Your task to perform on an android device: turn off priority inbox in the gmail app Image 0: 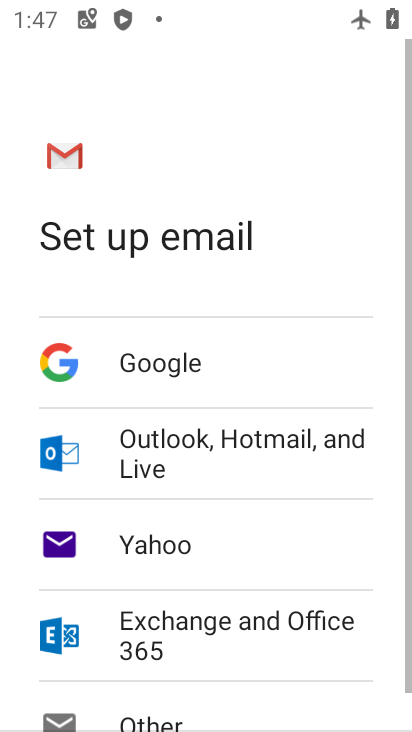
Step 0: press home button
Your task to perform on an android device: turn off priority inbox in the gmail app Image 1: 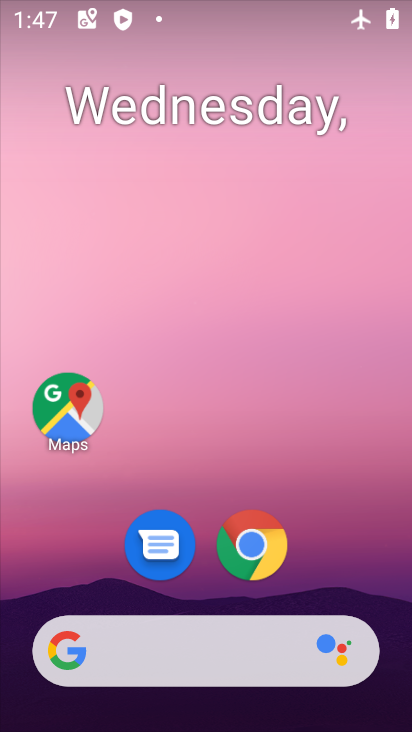
Step 1: drag from (320, 552) to (281, 110)
Your task to perform on an android device: turn off priority inbox in the gmail app Image 2: 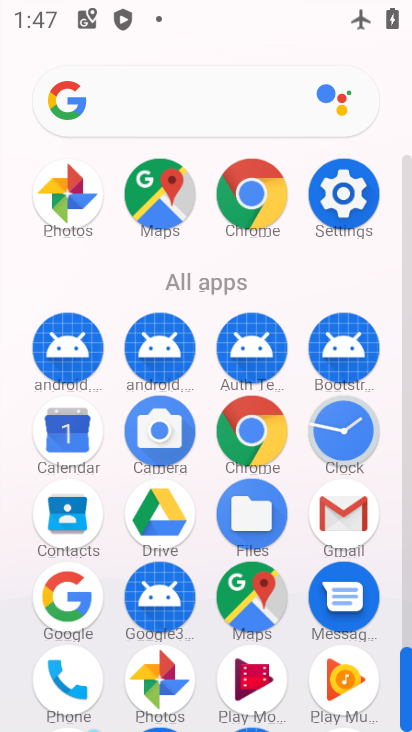
Step 2: click (344, 510)
Your task to perform on an android device: turn off priority inbox in the gmail app Image 3: 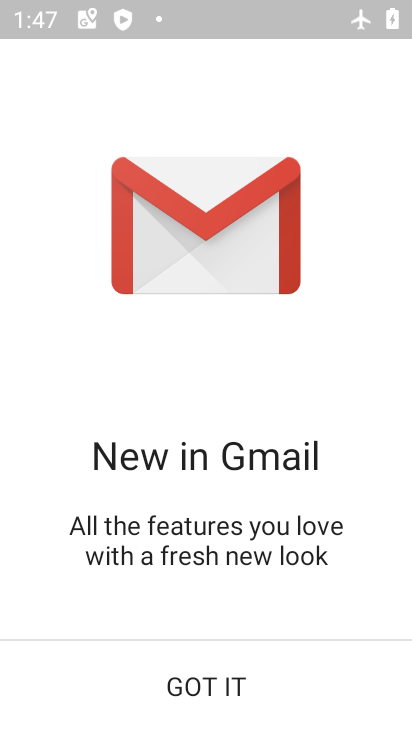
Step 3: click (220, 669)
Your task to perform on an android device: turn off priority inbox in the gmail app Image 4: 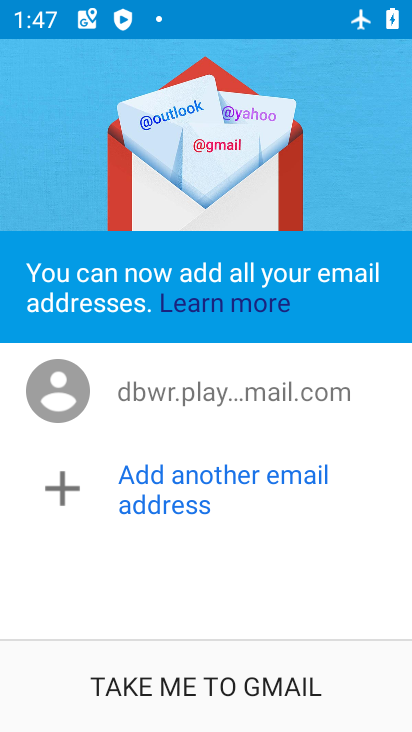
Step 4: click (211, 696)
Your task to perform on an android device: turn off priority inbox in the gmail app Image 5: 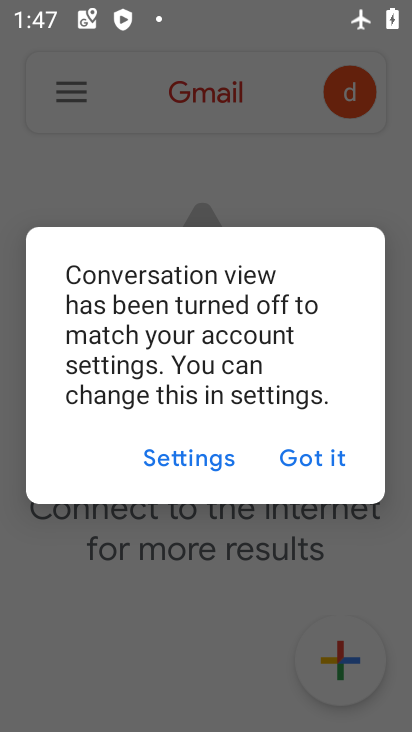
Step 5: click (306, 461)
Your task to perform on an android device: turn off priority inbox in the gmail app Image 6: 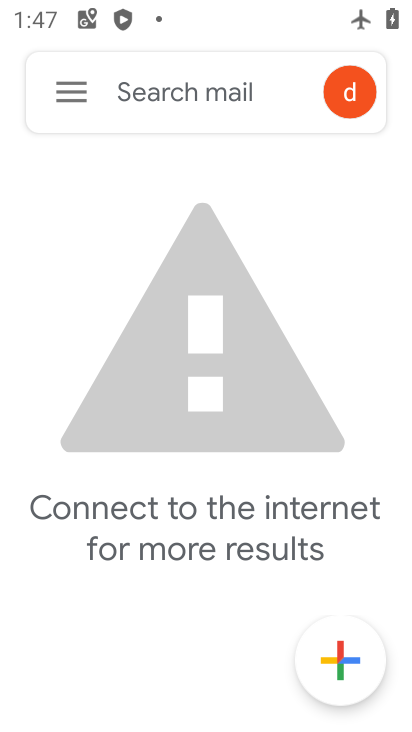
Step 6: click (56, 84)
Your task to perform on an android device: turn off priority inbox in the gmail app Image 7: 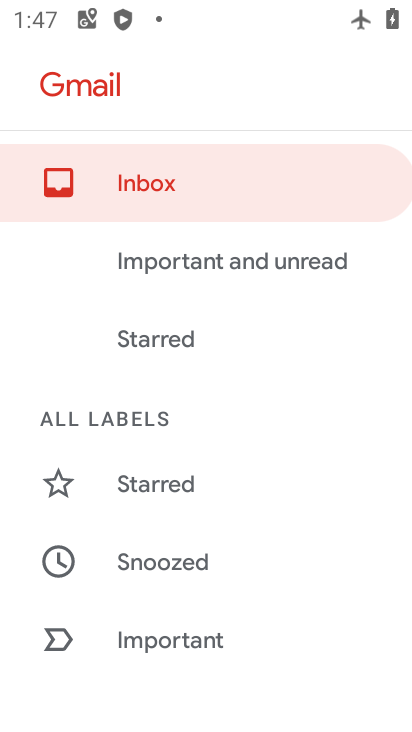
Step 7: drag from (144, 569) to (236, 69)
Your task to perform on an android device: turn off priority inbox in the gmail app Image 8: 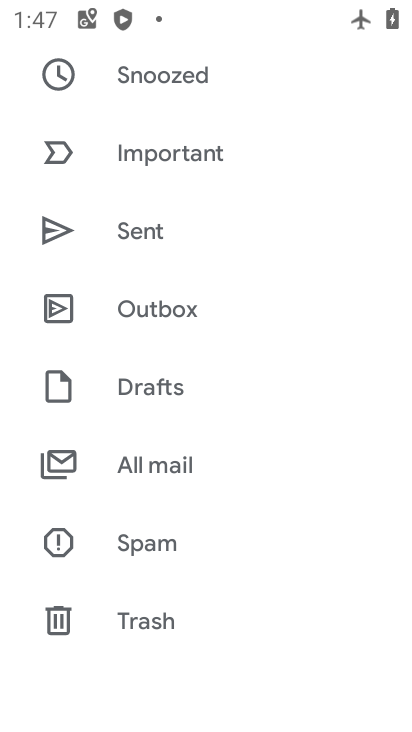
Step 8: drag from (174, 512) to (181, 104)
Your task to perform on an android device: turn off priority inbox in the gmail app Image 9: 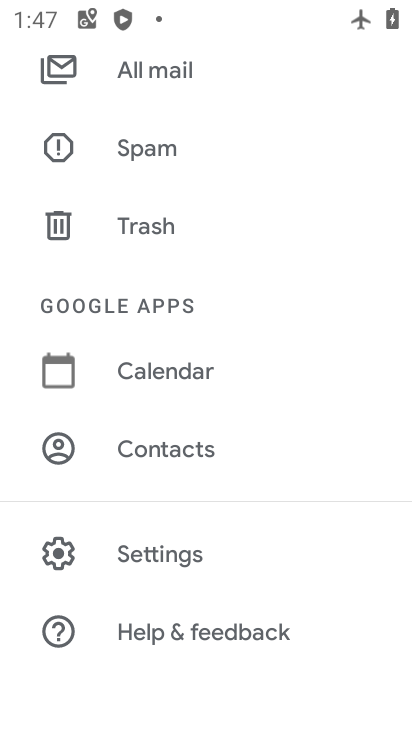
Step 9: click (134, 549)
Your task to perform on an android device: turn off priority inbox in the gmail app Image 10: 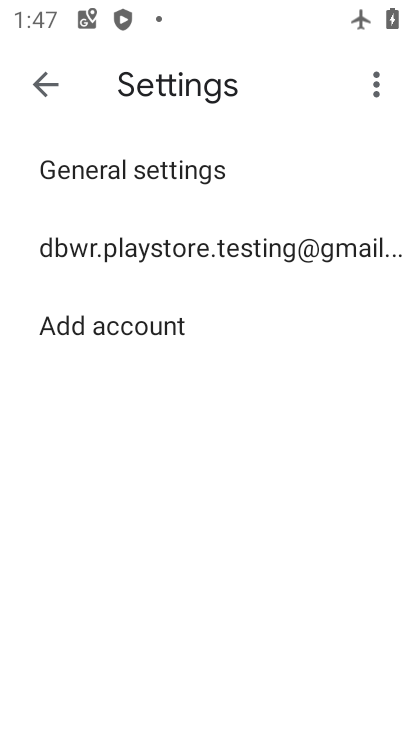
Step 10: click (178, 250)
Your task to perform on an android device: turn off priority inbox in the gmail app Image 11: 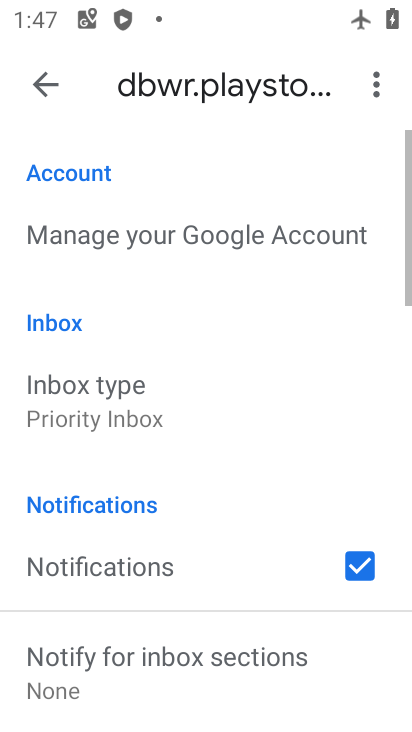
Step 11: click (109, 385)
Your task to perform on an android device: turn off priority inbox in the gmail app Image 12: 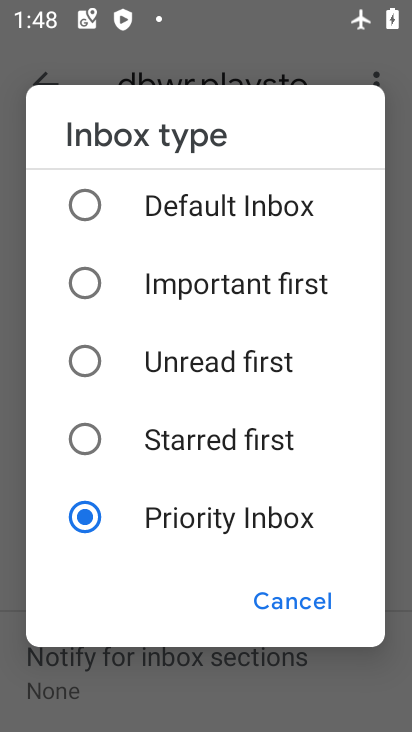
Step 12: task complete